Your task to perform on an android device: refresh tabs in the chrome app Image 0: 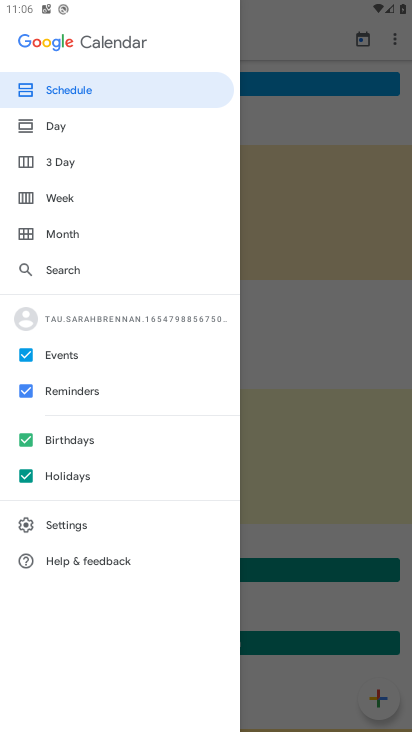
Step 0: press home button
Your task to perform on an android device: refresh tabs in the chrome app Image 1: 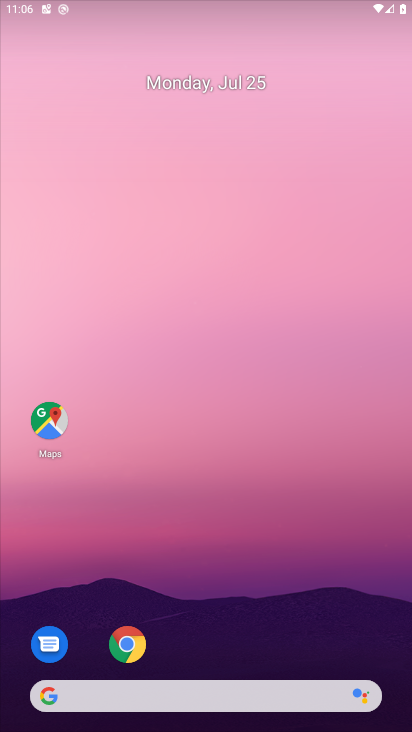
Step 1: drag from (297, 528) to (235, 578)
Your task to perform on an android device: refresh tabs in the chrome app Image 2: 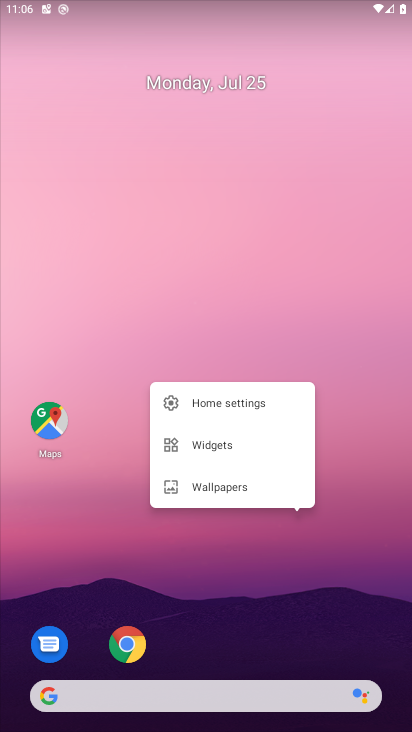
Step 2: click (110, 661)
Your task to perform on an android device: refresh tabs in the chrome app Image 3: 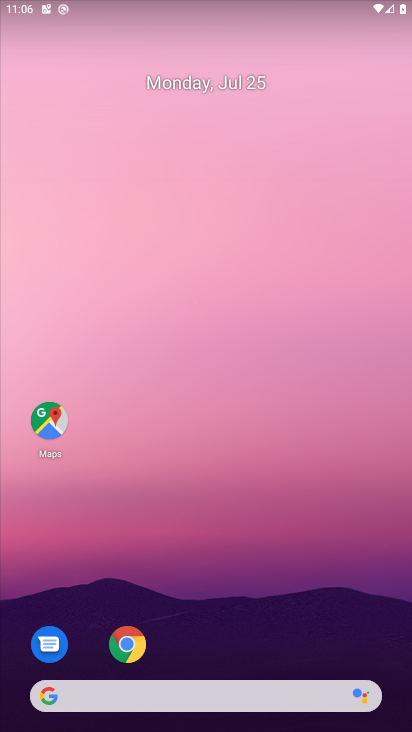
Step 3: click (110, 661)
Your task to perform on an android device: refresh tabs in the chrome app Image 4: 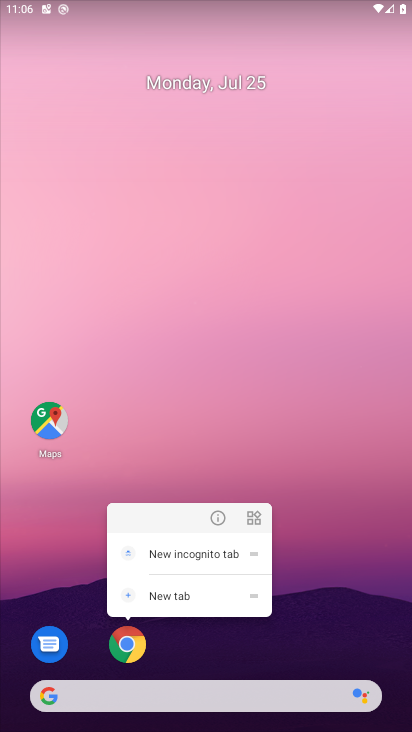
Step 4: click (123, 632)
Your task to perform on an android device: refresh tabs in the chrome app Image 5: 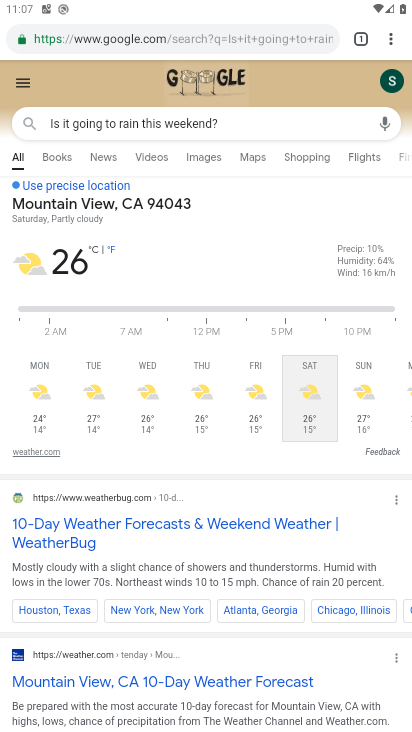
Step 5: drag from (396, 40) to (247, 439)
Your task to perform on an android device: refresh tabs in the chrome app Image 6: 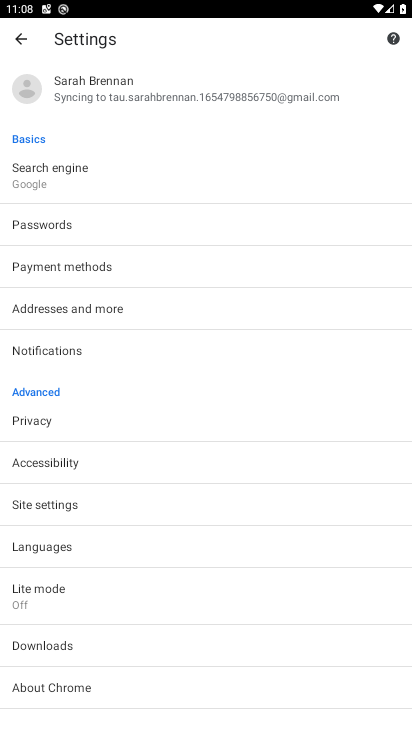
Step 6: click (21, 27)
Your task to perform on an android device: refresh tabs in the chrome app Image 7: 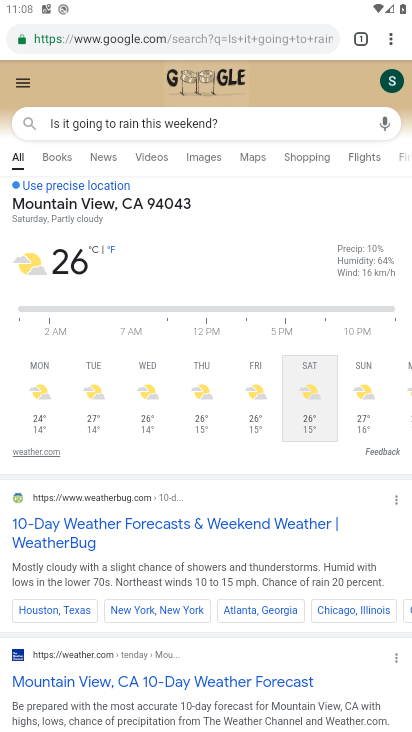
Step 7: click (393, 40)
Your task to perform on an android device: refresh tabs in the chrome app Image 8: 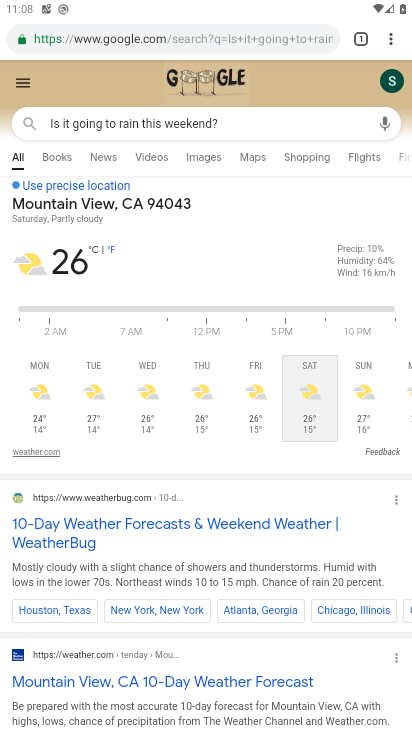
Step 8: click (392, 22)
Your task to perform on an android device: refresh tabs in the chrome app Image 9: 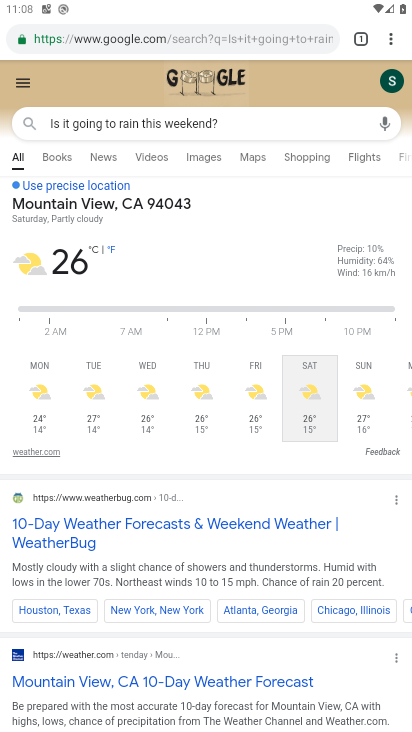
Step 9: task complete